Your task to perform on an android device: Show me popular games on the Play Store Image 0: 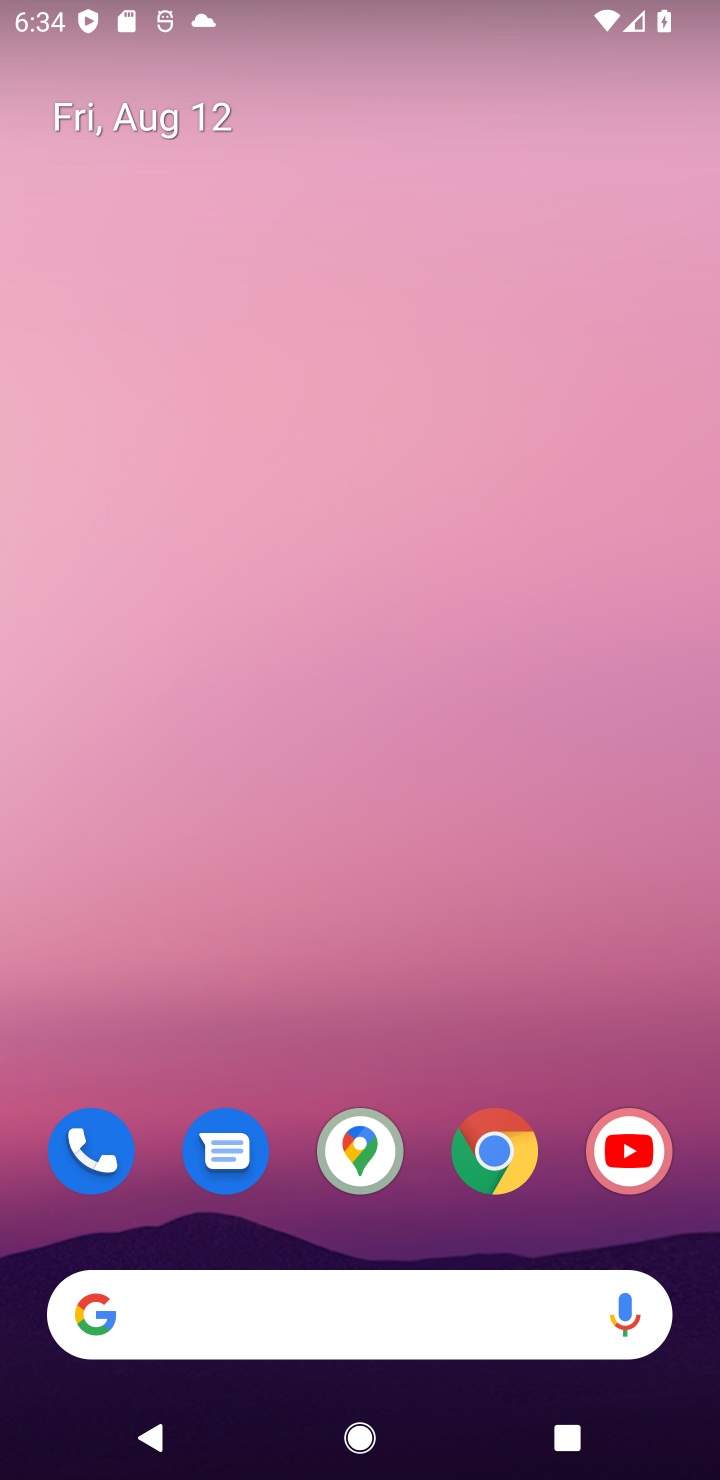
Step 0: drag from (431, 1028) to (376, 122)
Your task to perform on an android device: Show me popular games on the Play Store Image 1: 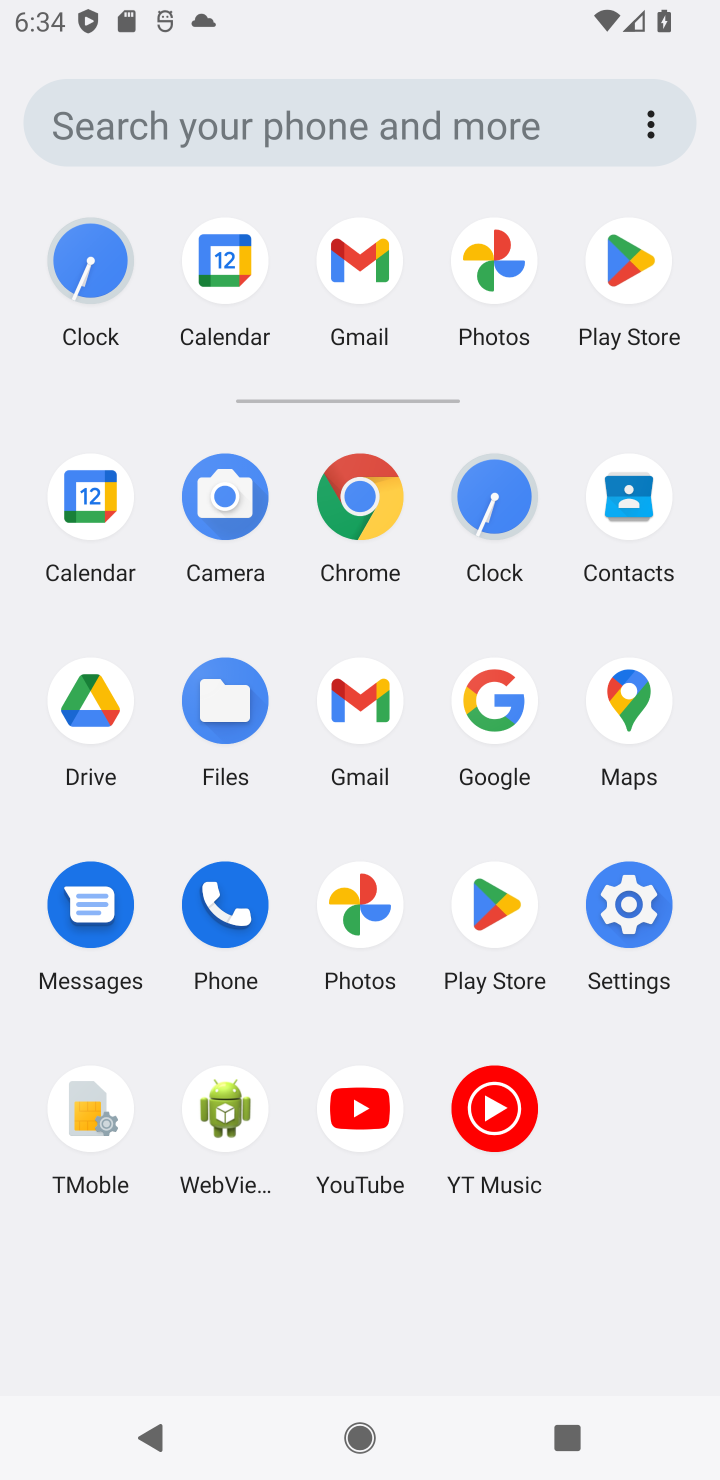
Step 1: click (484, 888)
Your task to perform on an android device: Show me popular games on the Play Store Image 2: 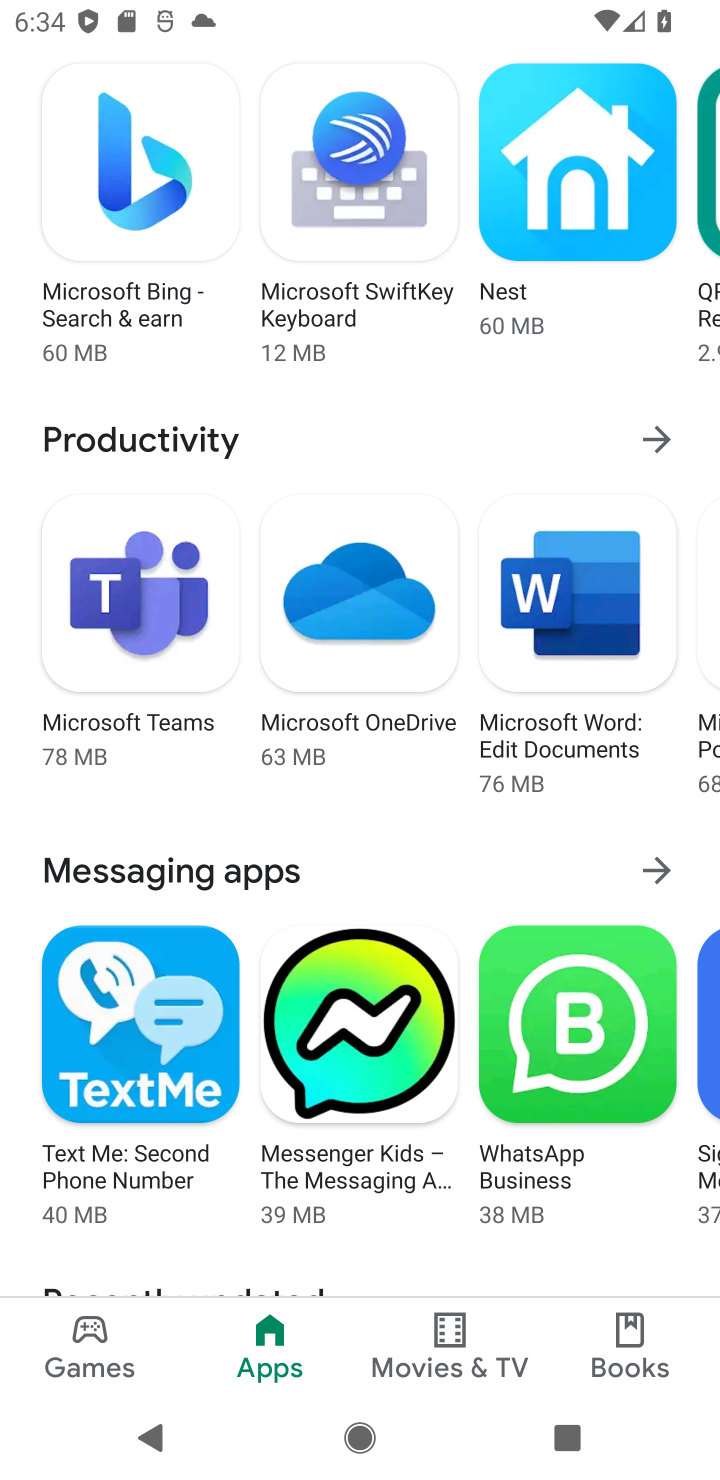
Step 2: click (56, 1364)
Your task to perform on an android device: Show me popular games on the Play Store Image 3: 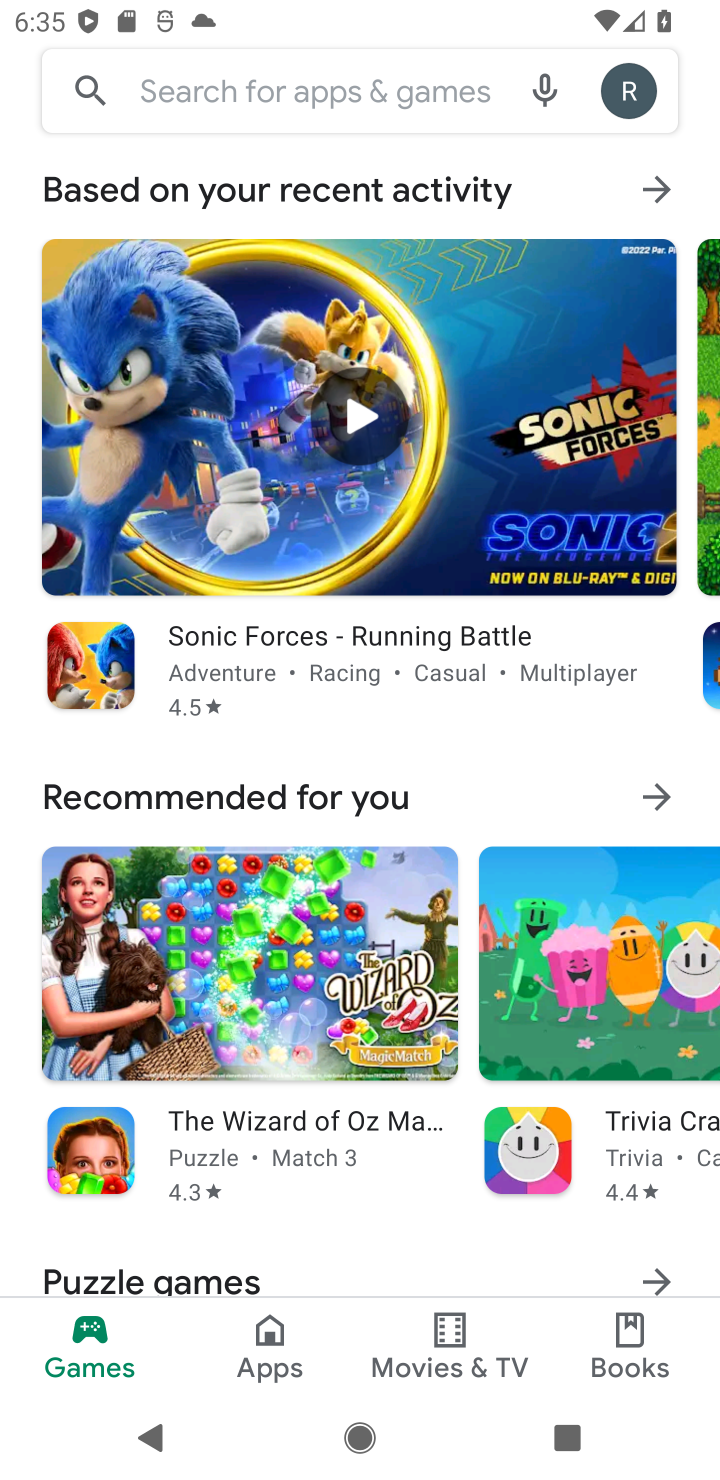
Step 3: task complete